Your task to perform on an android device: Open Youtube and go to "Your channel" Image 0: 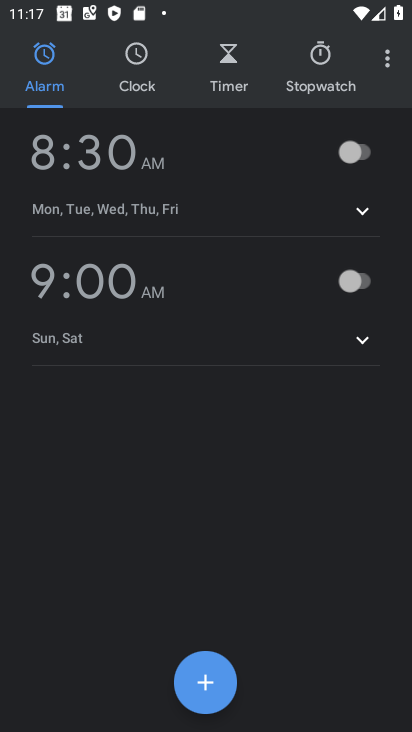
Step 0: press home button
Your task to perform on an android device: Open Youtube and go to "Your channel" Image 1: 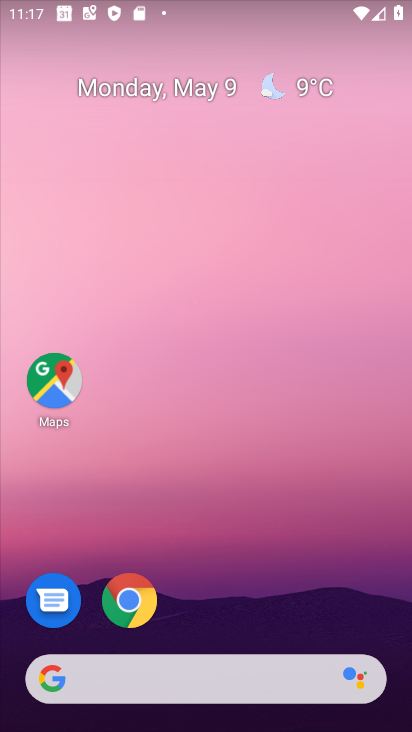
Step 1: drag from (356, 614) to (359, 152)
Your task to perform on an android device: Open Youtube and go to "Your channel" Image 2: 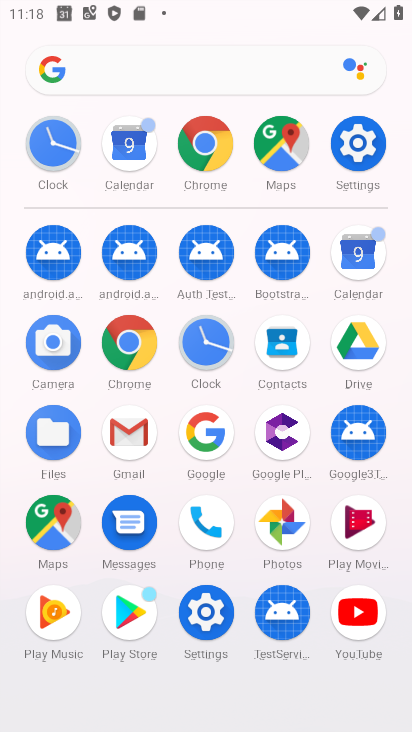
Step 2: click (370, 628)
Your task to perform on an android device: Open Youtube and go to "Your channel" Image 3: 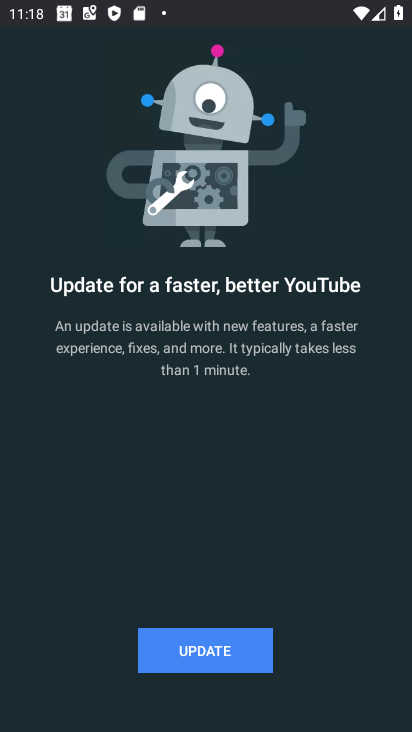
Step 3: click (227, 649)
Your task to perform on an android device: Open Youtube and go to "Your channel" Image 4: 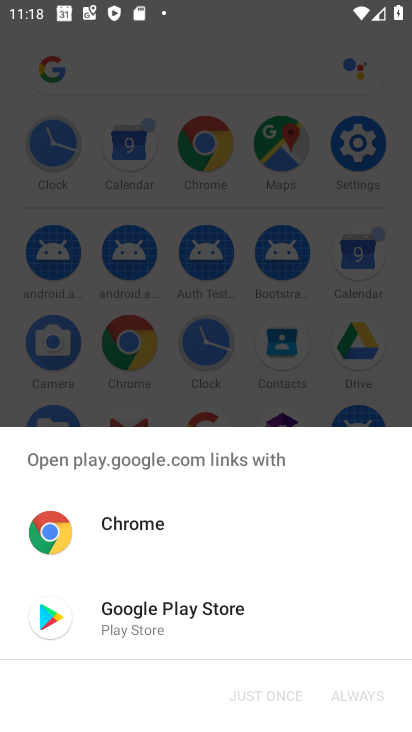
Step 4: click (233, 623)
Your task to perform on an android device: Open Youtube and go to "Your channel" Image 5: 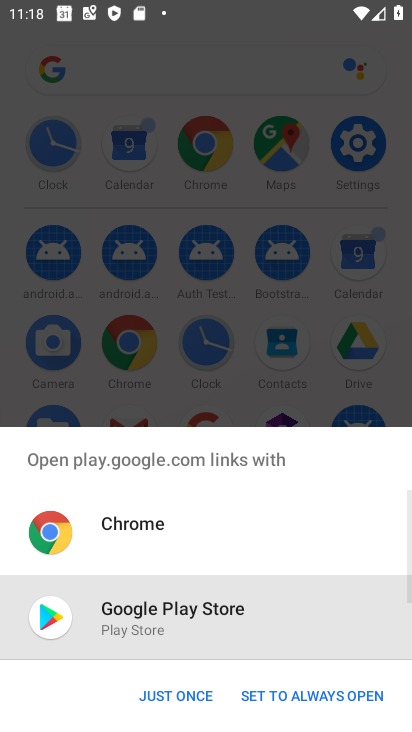
Step 5: click (172, 698)
Your task to perform on an android device: Open Youtube and go to "Your channel" Image 6: 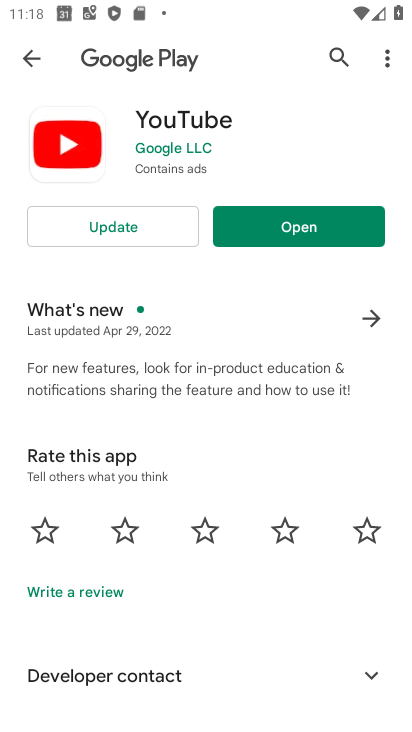
Step 6: click (95, 223)
Your task to perform on an android device: Open Youtube and go to "Your channel" Image 7: 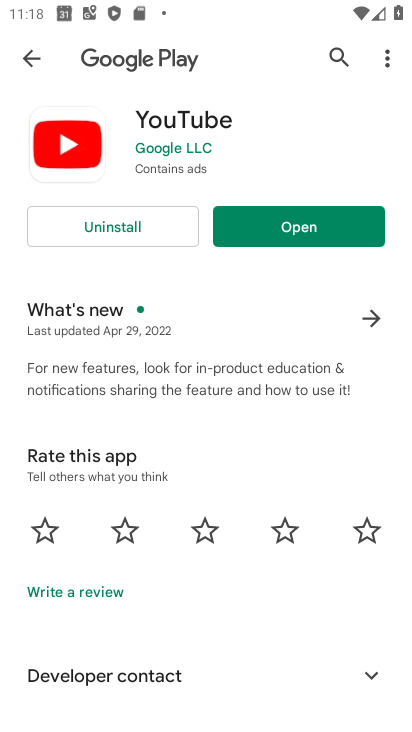
Step 7: click (350, 231)
Your task to perform on an android device: Open Youtube and go to "Your channel" Image 8: 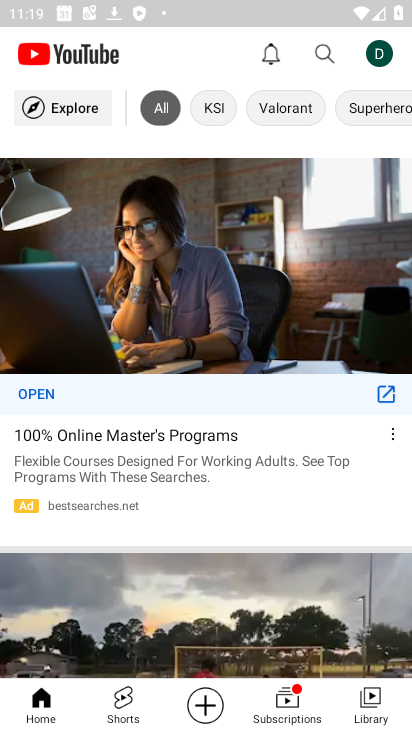
Step 8: click (374, 61)
Your task to perform on an android device: Open Youtube and go to "Your channel" Image 9: 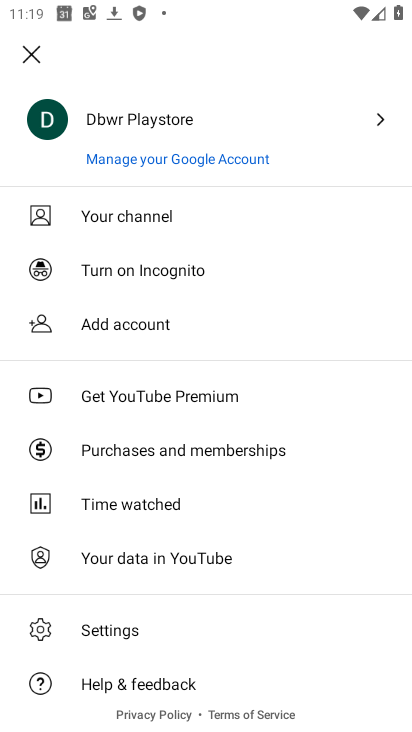
Step 9: click (119, 231)
Your task to perform on an android device: Open Youtube and go to "Your channel" Image 10: 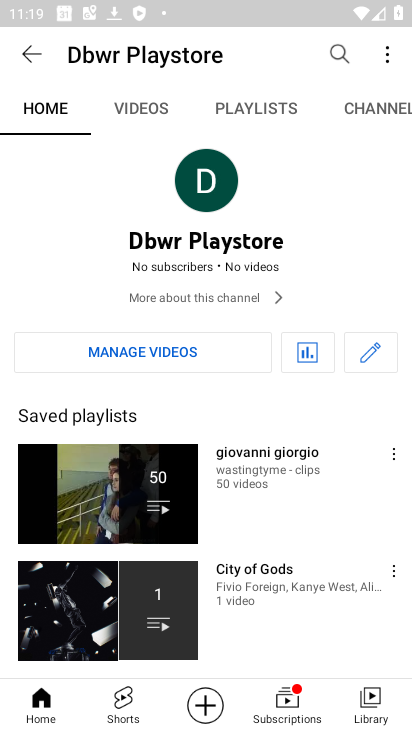
Step 10: task complete